Your task to perform on an android device: Open my contact list Image 0: 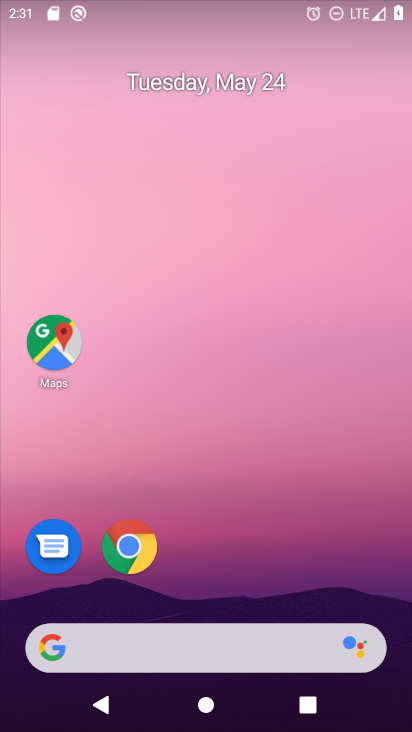
Step 0: drag from (147, 648) to (204, 8)
Your task to perform on an android device: Open my contact list Image 1: 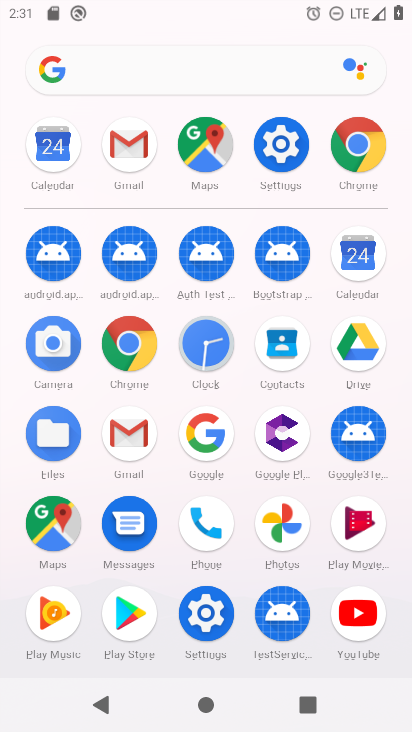
Step 1: click (279, 357)
Your task to perform on an android device: Open my contact list Image 2: 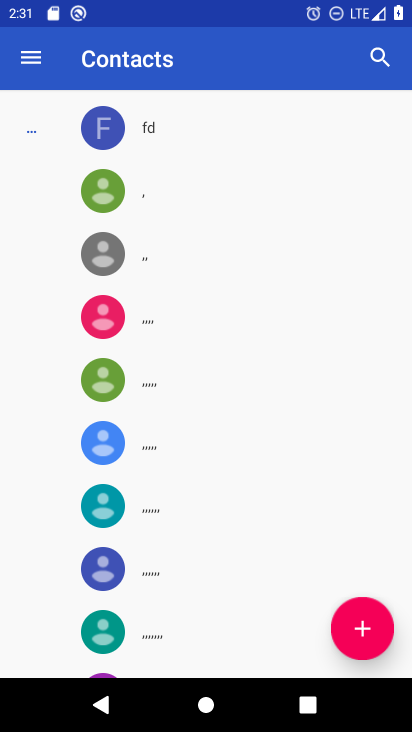
Step 2: task complete